Your task to perform on an android device: manage bookmarks in the chrome app Image 0: 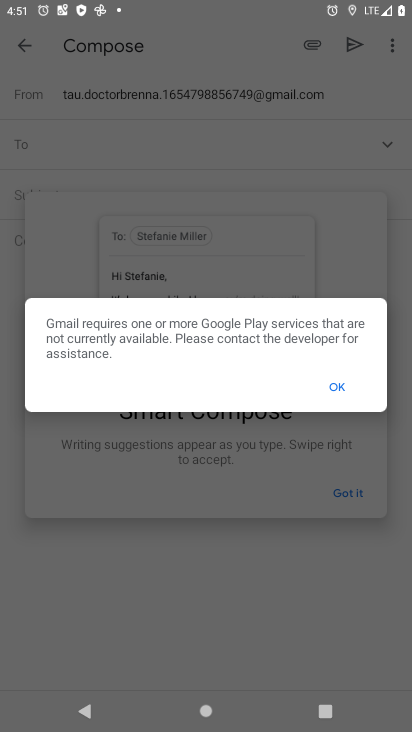
Step 0: press home button
Your task to perform on an android device: manage bookmarks in the chrome app Image 1: 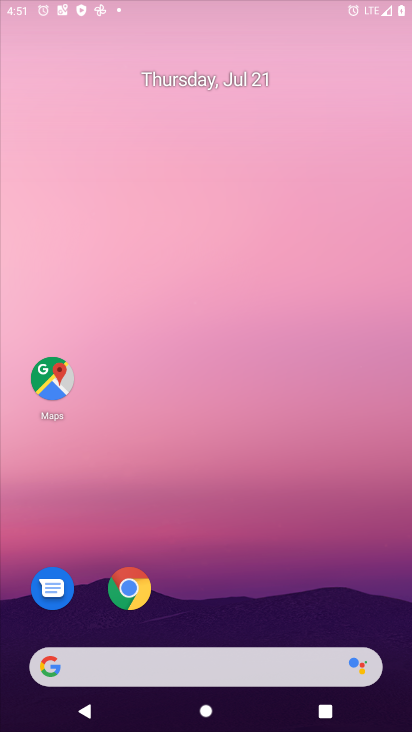
Step 1: drag from (283, 644) to (270, 225)
Your task to perform on an android device: manage bookmarks in the chrome app Image 2: 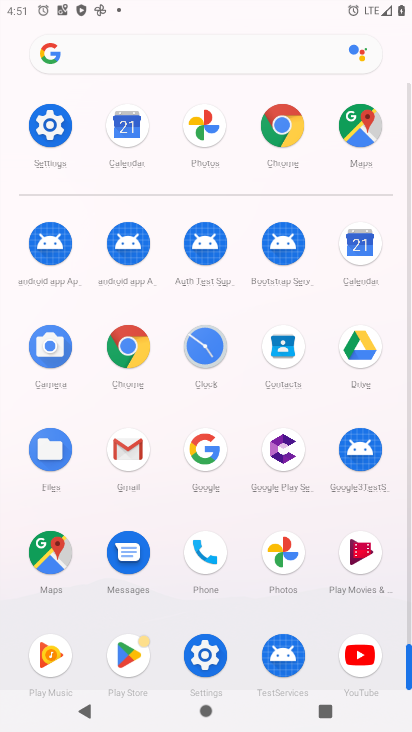
Step 2: click (136, 364)
Your task to perform on an android device: manage bookmarks in the chrome app Image 3: 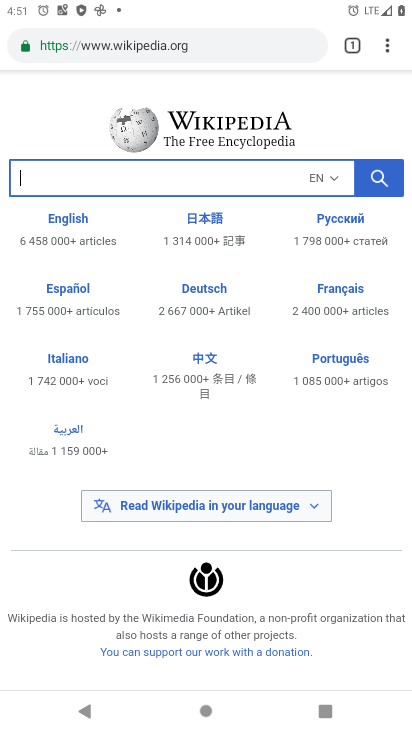
Step 3: click (383, 53)
Your task to perform on an android device: manage bookmarks in the chrome app Image 4: 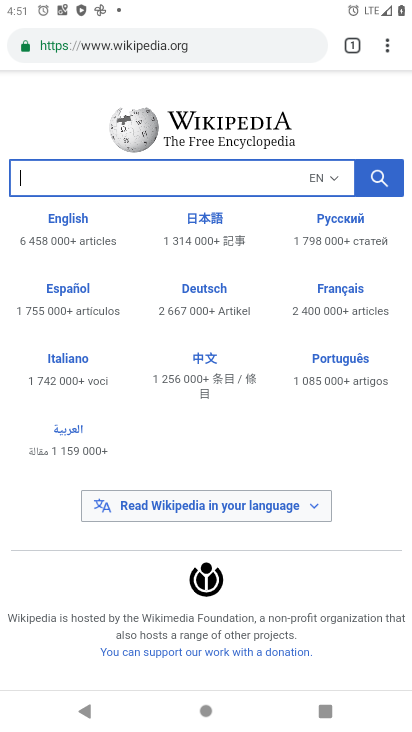
Step 4: click (383, 53)
Your task to perform on an android device: manage bookmarks in the chrome app Image 5: 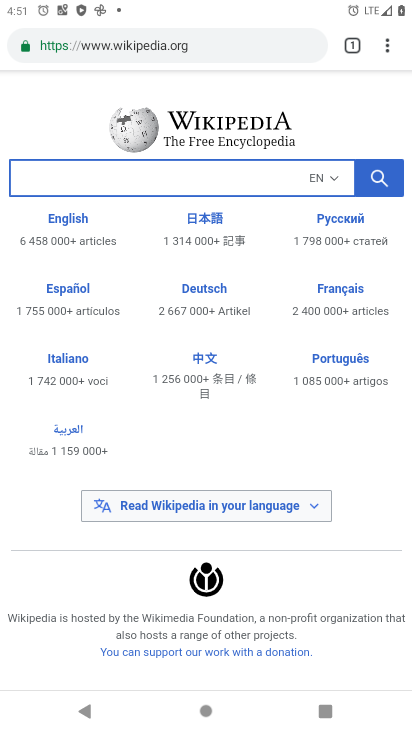
Step 5: click (383, 53)
Your task to perform on an android device: manage bookmarks in the chrome app Image 6: 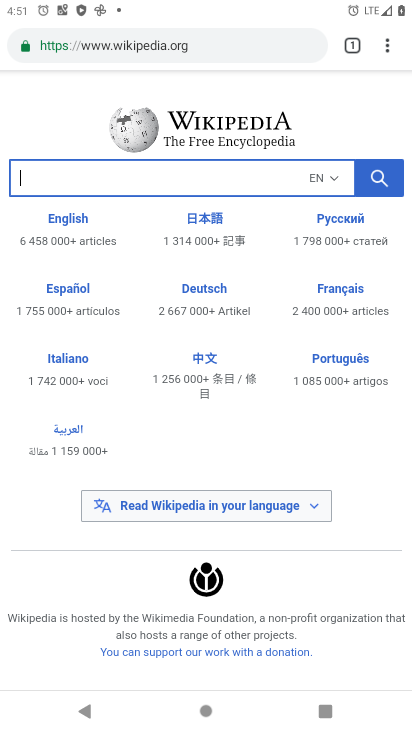
Step 6: task complete